Your task to perform on an android device: turn on translation in the chrome app Image 0: 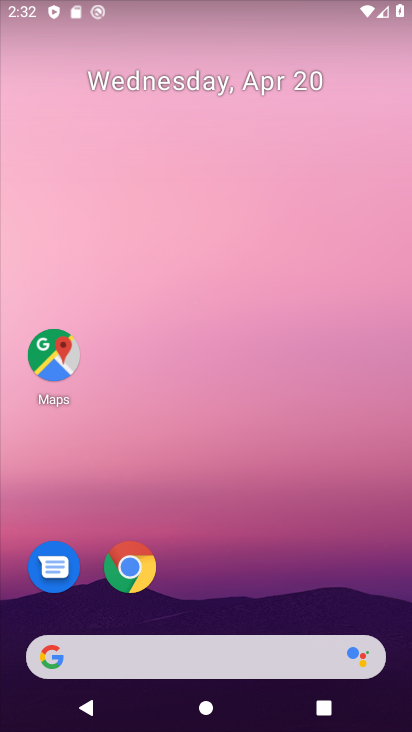
Step 0: click (145, 563)
Your task to perform on an android device: turn on translation in the chrome app Image 1: 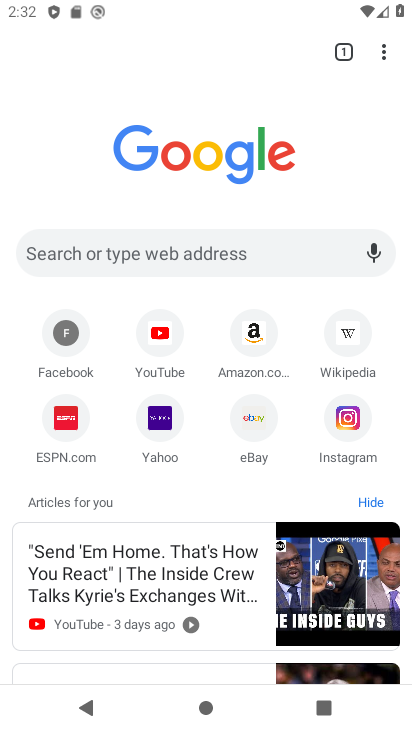
Step 1: click (382, 55)
Your task to perform on an android device: turn on translation in the chrome app Image 2: 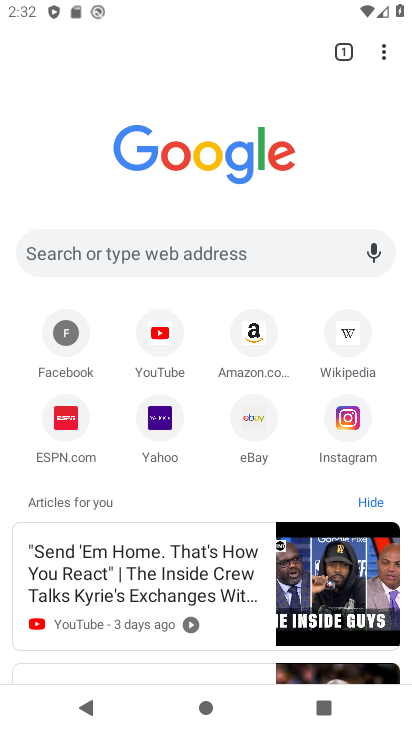
Step 2: click (382, 55)
Your task to perform on an android device: turn on translation in the chrome app Image 3: 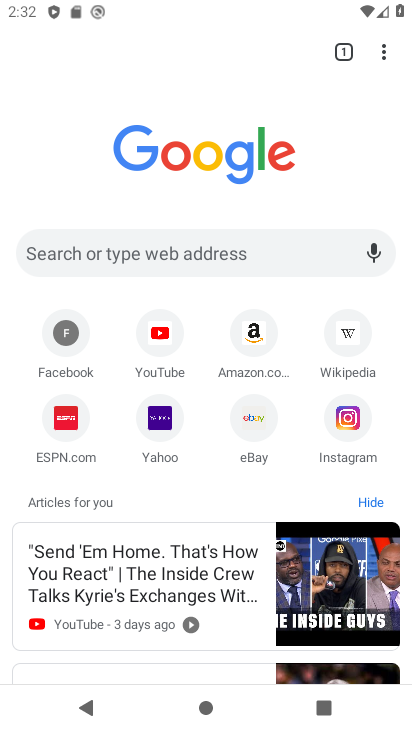
Step 3: drag from (383, 51) to (221, 434)
Your task to perform on an android device: turn on translation in the chrome app Image 4: 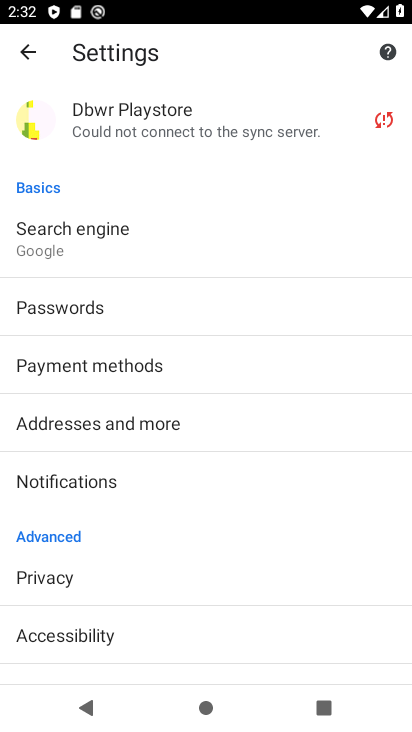
Step 4: drag from (171, 604) to (230, 238)
Your task to perform on an android device: turn on translation in the chrome app Image 5: 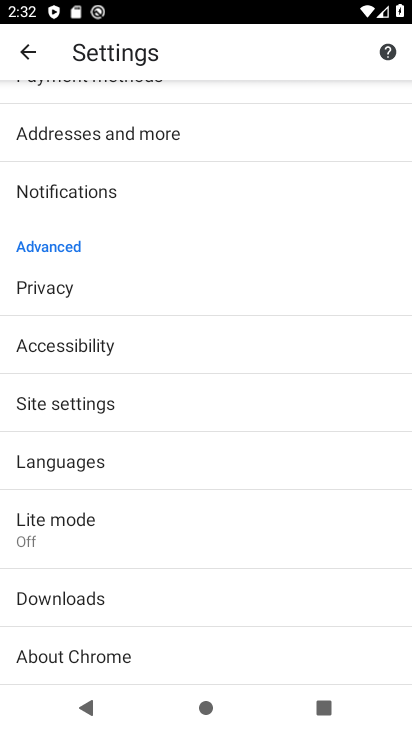
Step 5: click (85, 466)
Your task to perform on an android device: turn on translation in the chrome app Image 6: 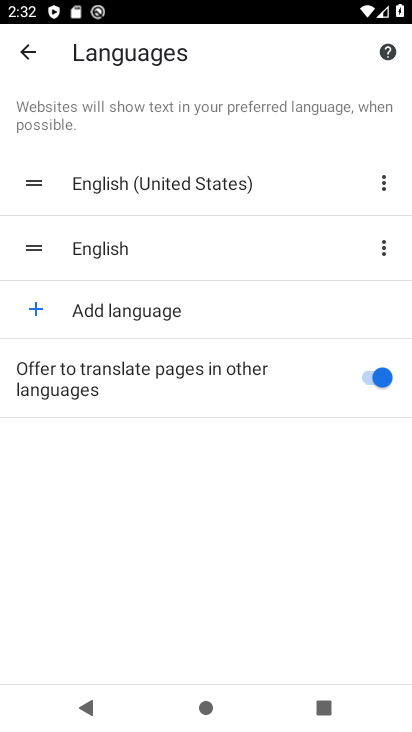
Step 6: task complete